Your task to perform on an android device: turn on bluetooth scan Image 0: 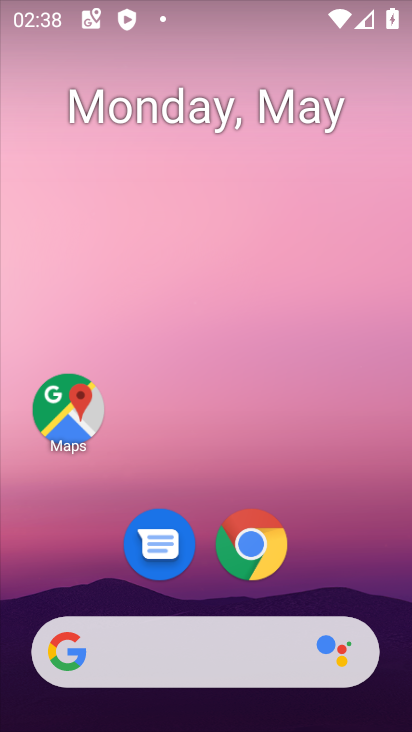
Step 0: drag from (369, 576) to (366, 159)
Your task to perform on an android device: turn on bluetooth scan Image 1: 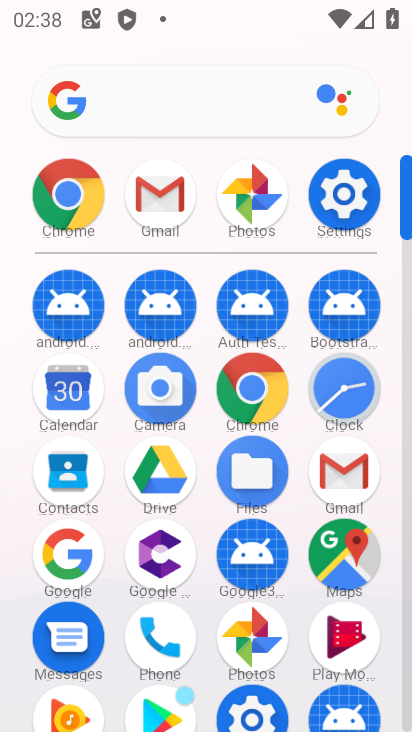
Step 1: click (346, 220)
Your task to perform on an android device: turn on bluetooth scan Image 2: 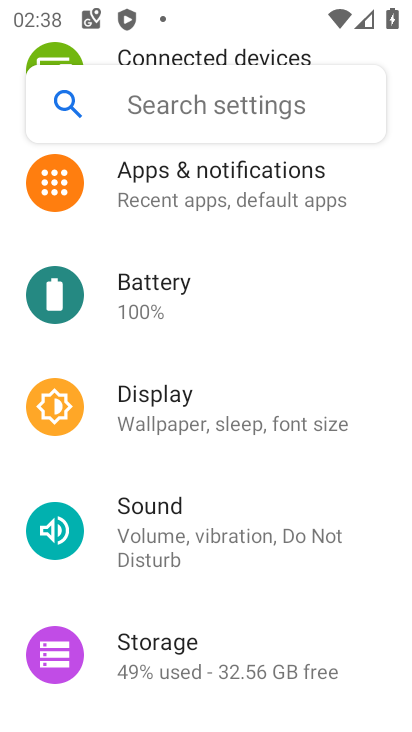
Step 2: drag from (364, 253) to (347, 397)
Your task to perform on an android device: turn on bluetooth scan Image 3: 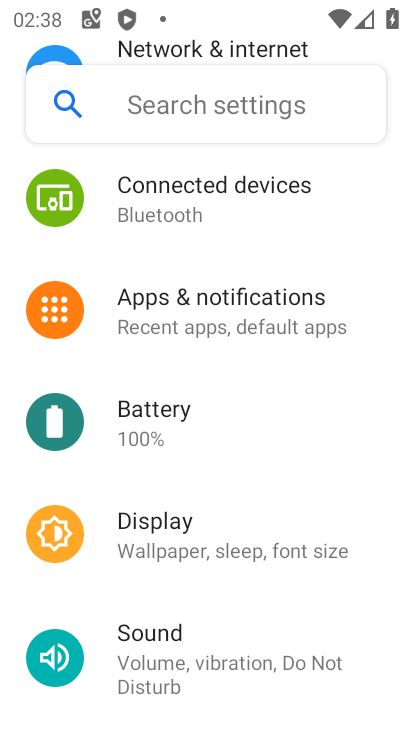
Step 3: drag from (365, 196) to (338, 366)
Your task to perform on an android device: turn on bluetooth scan Image 4: 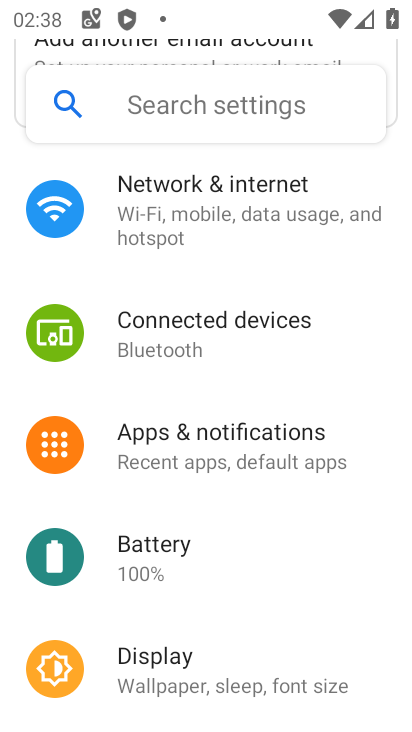
Step 4: drag from (350, 160) to (361, 436)
Your task to perform on an android device: turn on bluetooth scan Image 5: 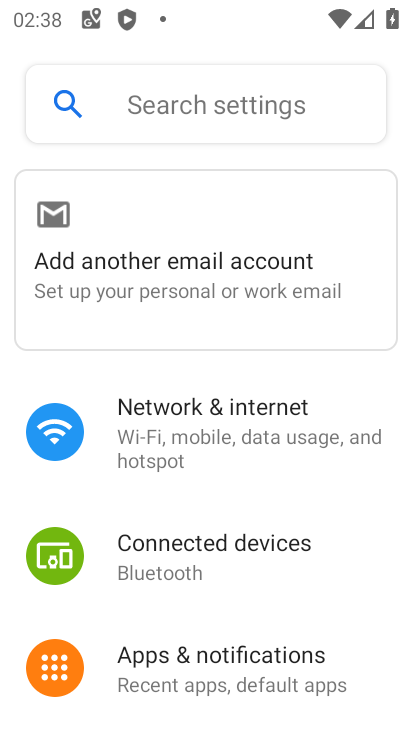
Step 5: drag from (358, 516) to (349, 382)
Your task to perform on an android device: turn on bluetooth scan Image 6: 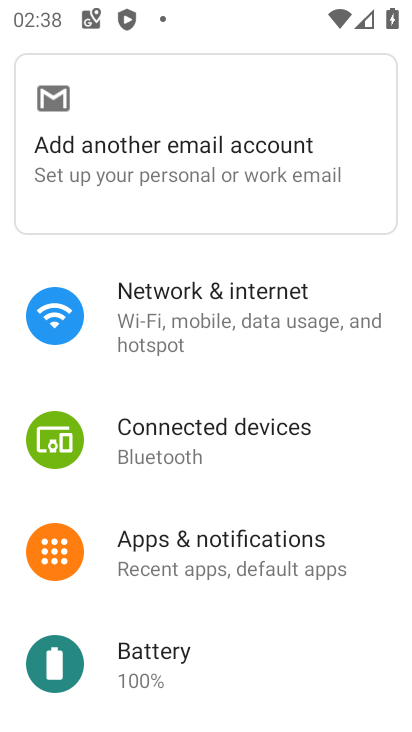
Step 6: drag from (357, 515) to (349, 417)
Your task to perform on an android device: turn on bluetooth scan Image 7: 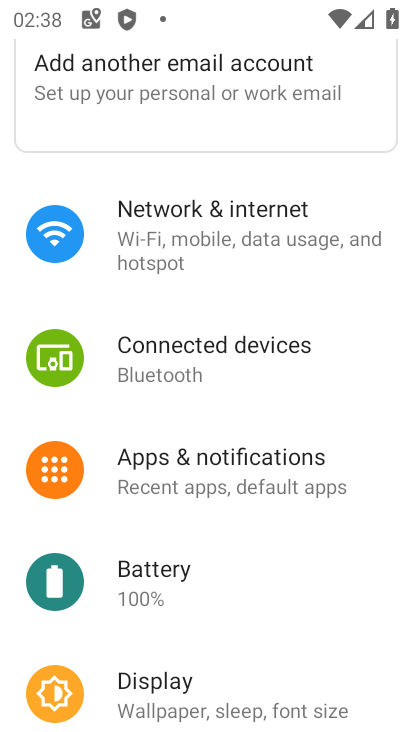
Step 7: drag from (353, 557) to (384, 333)
Your task to perform on an android device: turn on bluetooth scan Image 8: 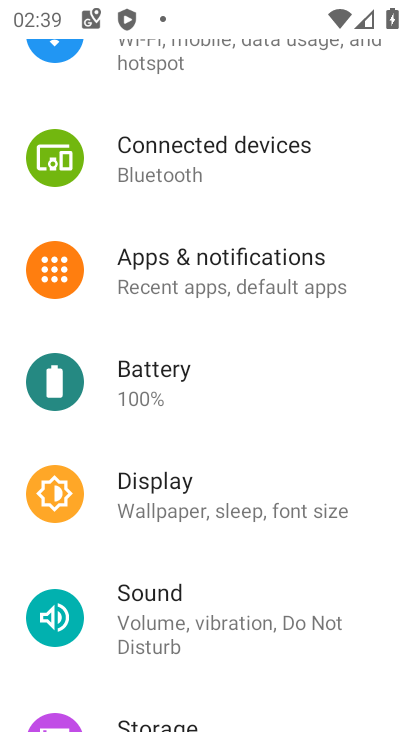
Step 8: drag from (348, 585) to (355, 444)
Your task to perform on an android device: turn on bluetooth scan Image 9: 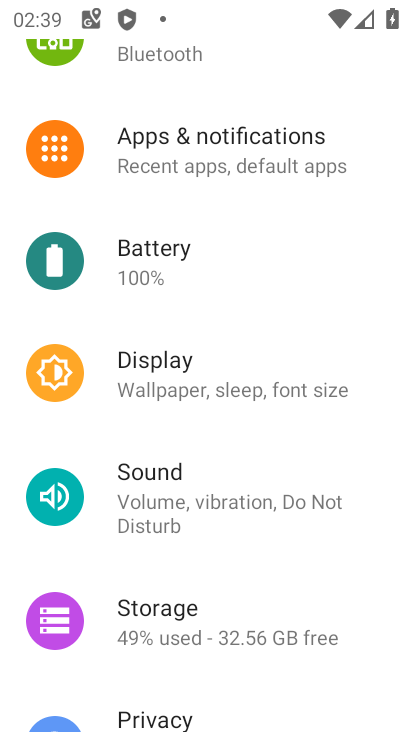
Step 9: drag from (366, 570) to (363, 426)
Your task to perform on an android device: turn on bluetooth scan Image 10: 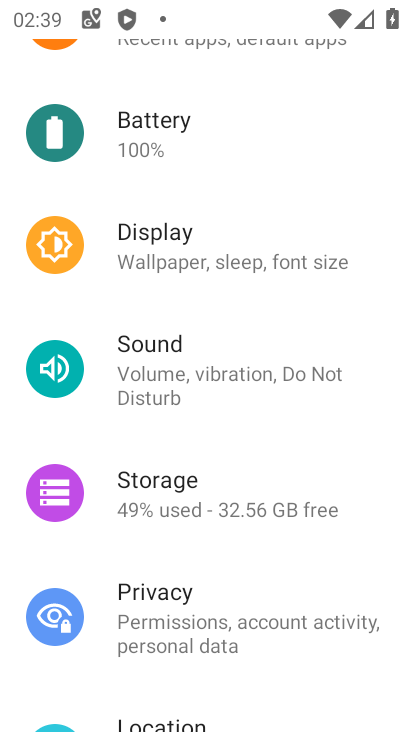
Step 10: drag from (351, 658) to (351, 441)
Your task to perform on an android device: turn on bluetooth scan Image 11: 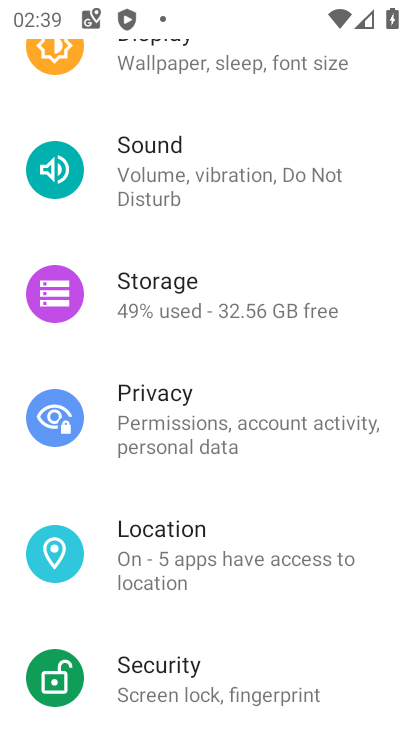
Step 11: drag from (347, 654) to (349, 473)
Your task to perform on an android device: turn on bluetooth scan Image 12: 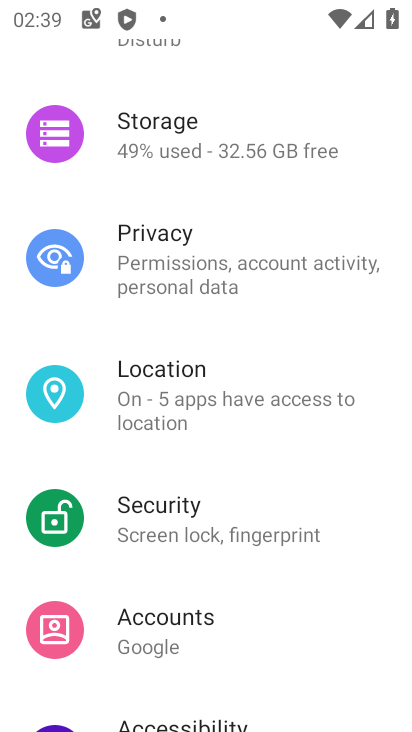
Step 12: click (323, 440)
Your task to perform on an android device: turn on bluetooth scan Image 13: 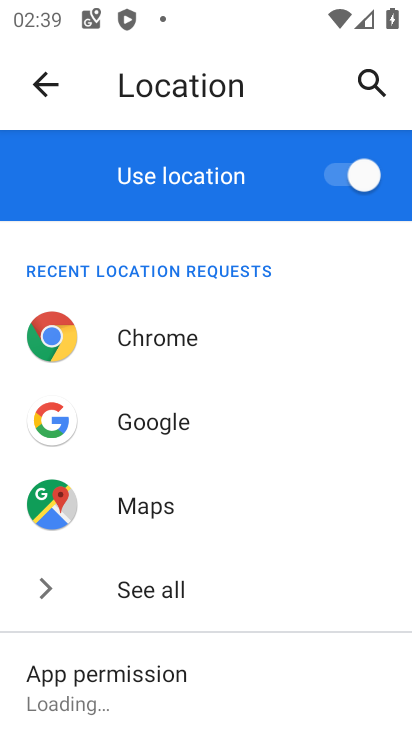
Step 13: drag from (309, 522) to (309, 396)
Your task to perform on an android device: turn on bluetooth scan Image 14: 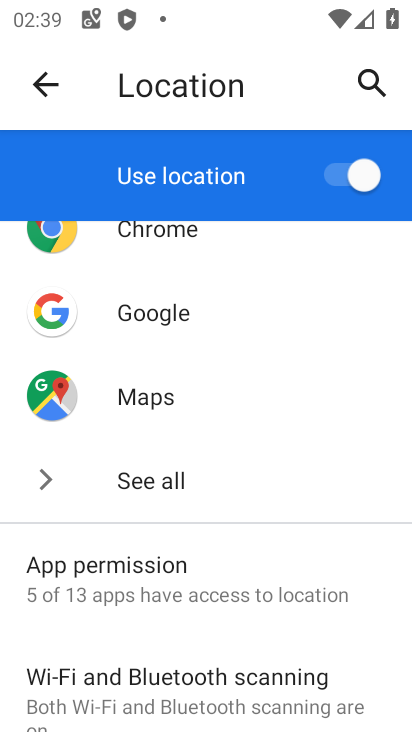
Step 14: drag from (321, 552) to (324, 412)
Your task to perform on an android device: turn on bluetooth scan Image 15: 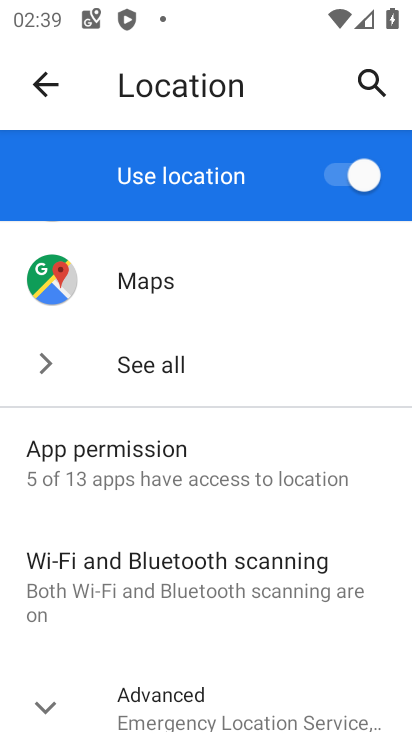
Step 15: drag from (310, 618) to (328, 442)
Your task to perform on an android device: turn on bluetooth scan Image 16: 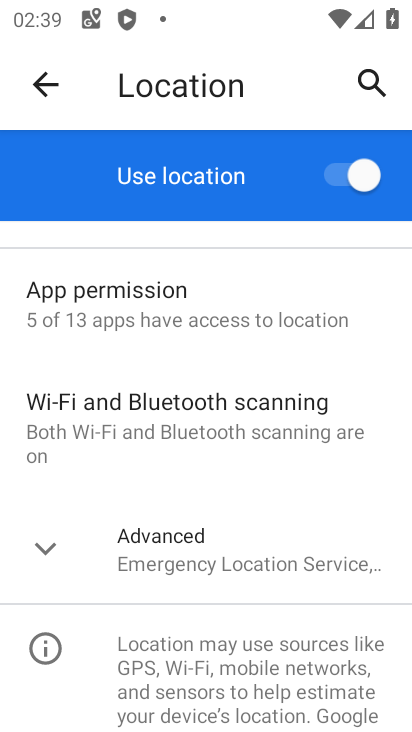
Step 16: click (333, 449)
Your task to perform on an android device: turn on bluetooth scan Image 17: 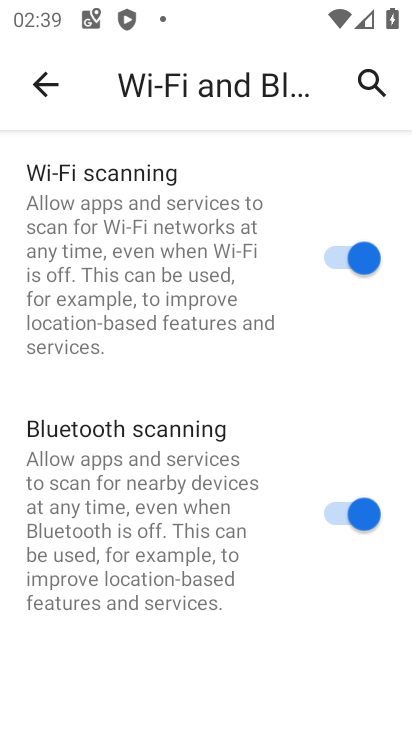
Step 17: task complete